Your task to perform on an android device: change text size in settings app Image 0: 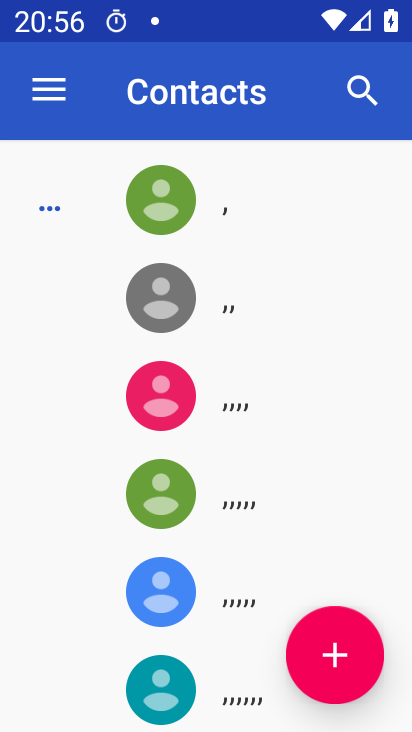
Step 0: press home button
Your task to perform on an android device: change text size in settings app Image 1: 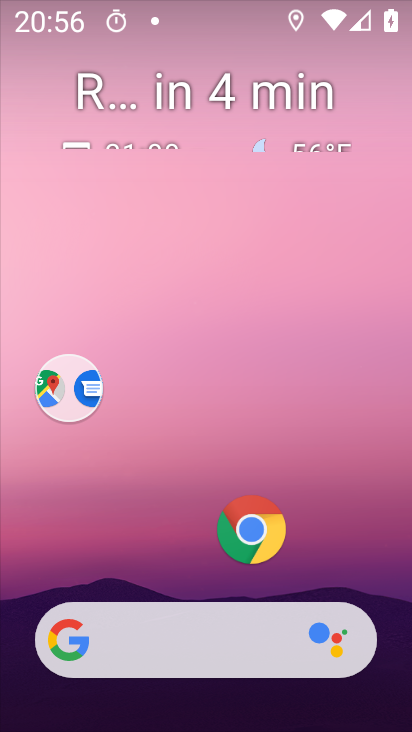
Step 1: drag from (148, 574) to (133, 55)
Your task to perform on an android device: change text size in settings app Image 2: 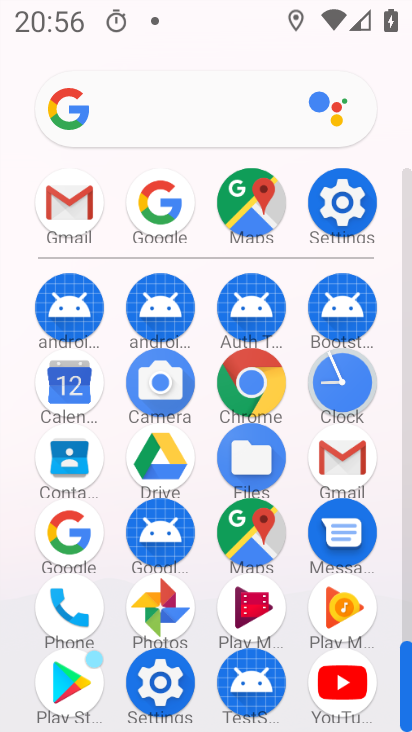
Step 2: click (348, 203)
Your task to perform on an android device: change text size in settings app Image 3: 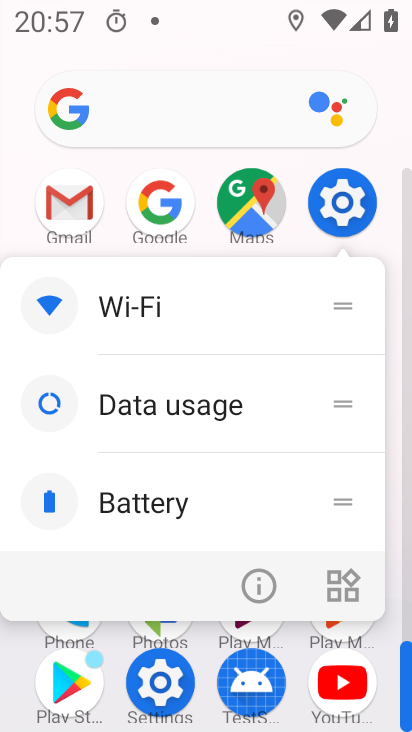
Step 3: click (358, 204)
Your task to perform on an android device: change text size in settings app Image 4: 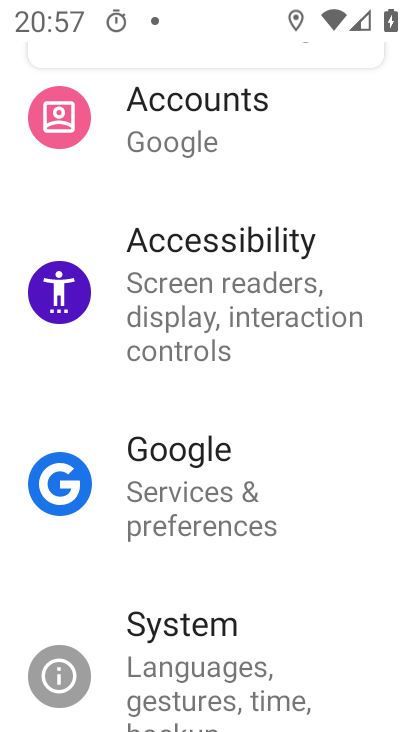
Step 4: drag from (270, 619) to (246, 647)
Your task to perform on an android device: change text size in settings app Image 5: 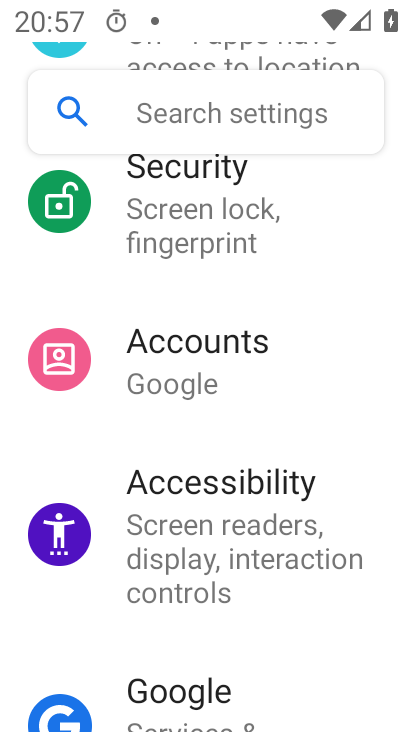
Step 5: drag from (153, 313) to (211, 575)
Your task to perform on an android device: change text size in settings app Image 6: 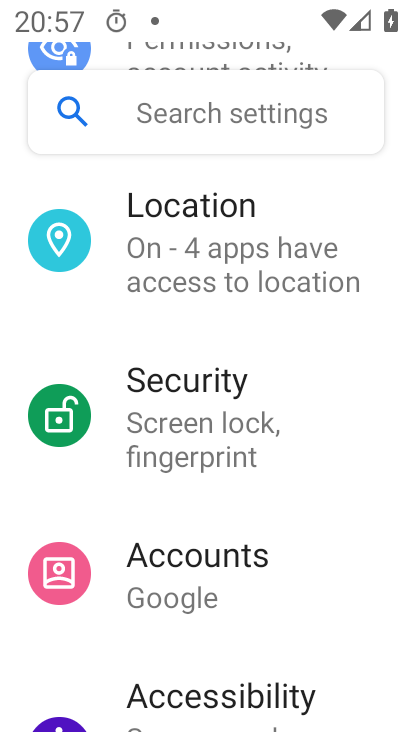
Step 6: drag from (173, 342) to (182, 724)
Your task to perform on an android device: change text size in settings app Image 7: 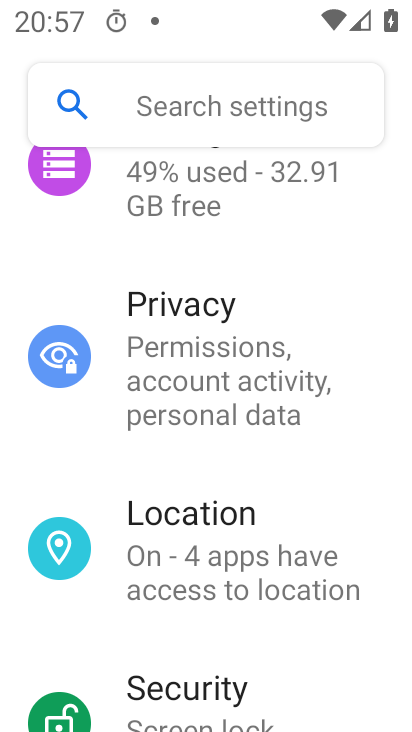
Step 7: drag from (176, 306) to (164, 682)
Your task to perform on an android device: change text size in settings app Image 8: 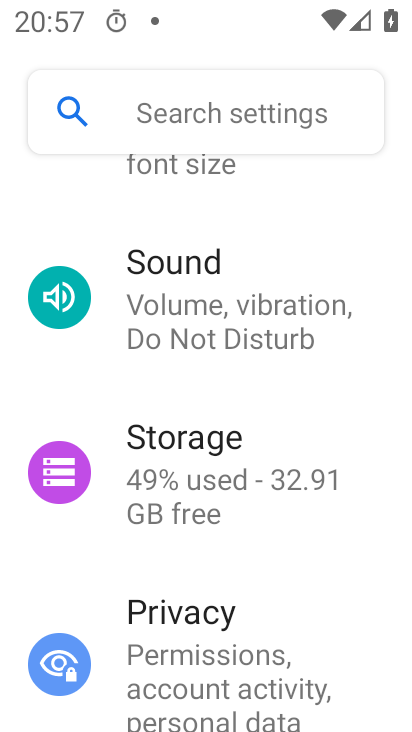
Step 8: drag from (246, 277) to (282, 581)
Your task to perform on an android device: change text size in settings app Image 9: 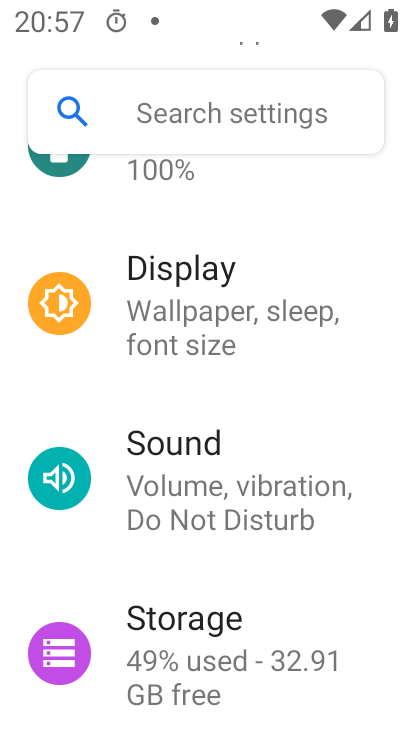
Step 9: click (205, 338)
Your task to perform on an android device: change text size in settings app Image 10: 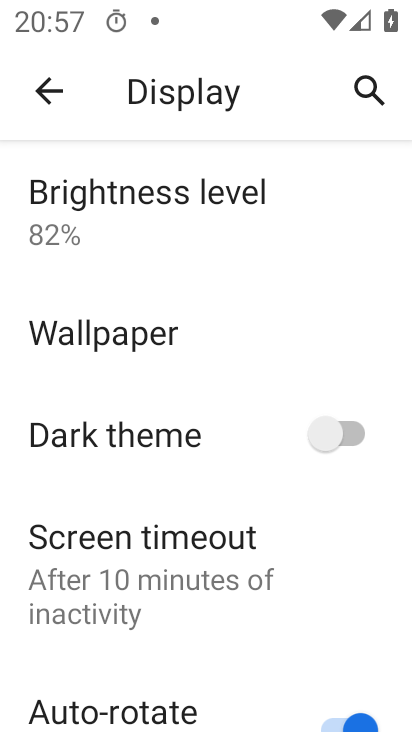
Step 10: drag from (219, 580) to (177, 122)
Your task to perform on an android device: change text size in settings app Image 11: 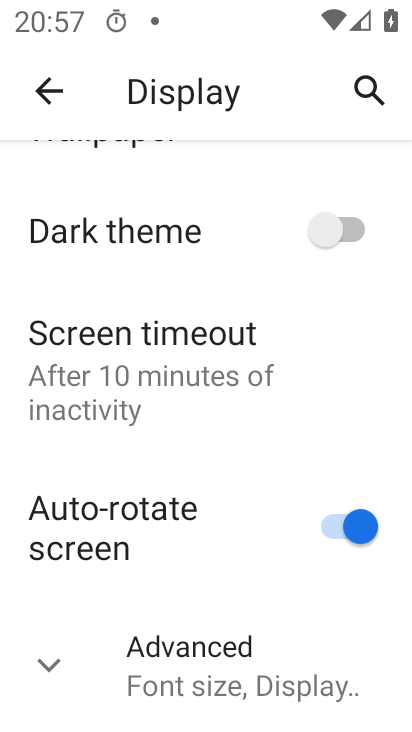
Step 11: click (182, 662)
Your task to perform on an android device: change text size in settings app Image 12: 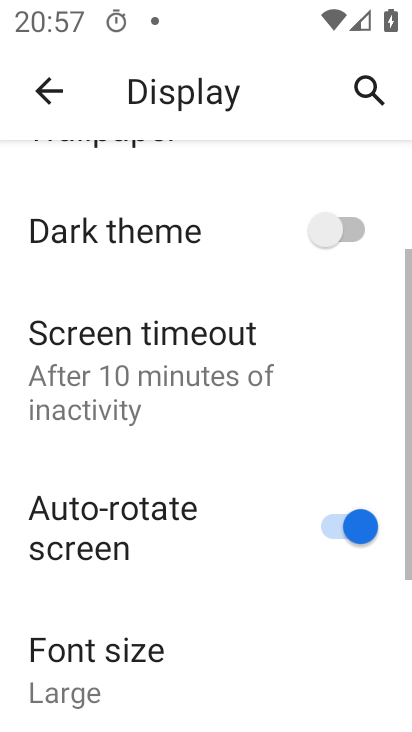
Step 12: drag from (212, 619) to (222, 187)
Your task to perform on an android device: change text size in settings app Image 13: 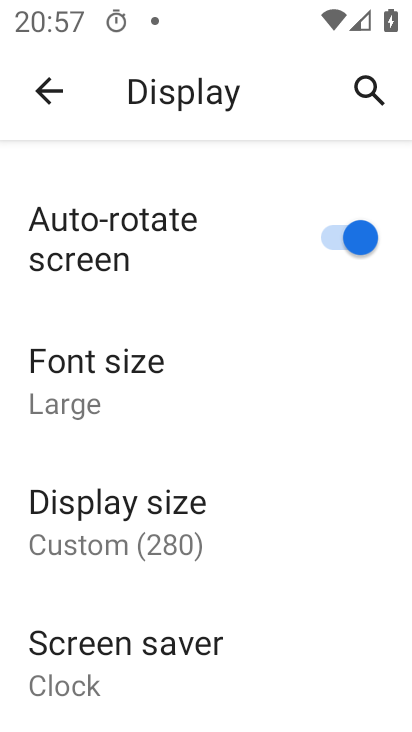
Step 13: click (127, 362)
Your task to perform on an android device: change text size in settings app Image 14: 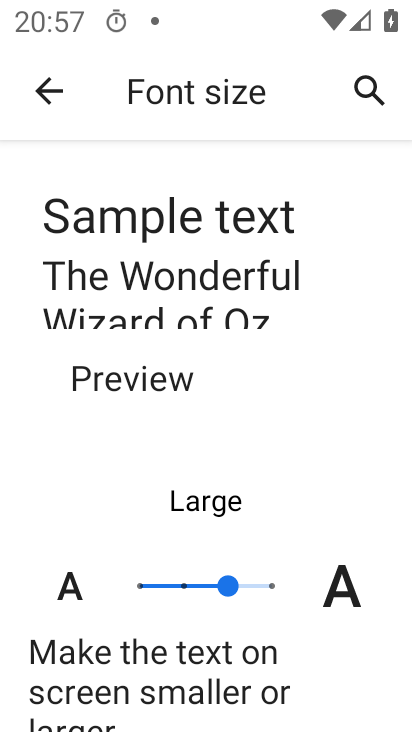
Step 14: task complete